Your task to perform on an android device: Set the phone to "Do not disturb". Image 0: 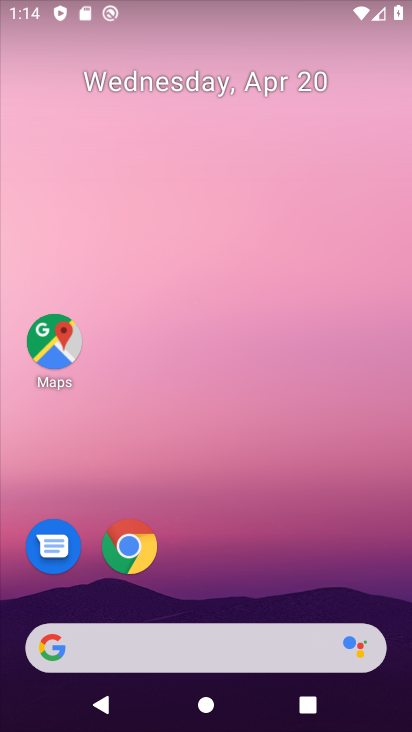
Step 0: drag from (219, 553) to (409, 24)
Your task to perform on an android device: Set the phone to "Do not disturb". Image 1: 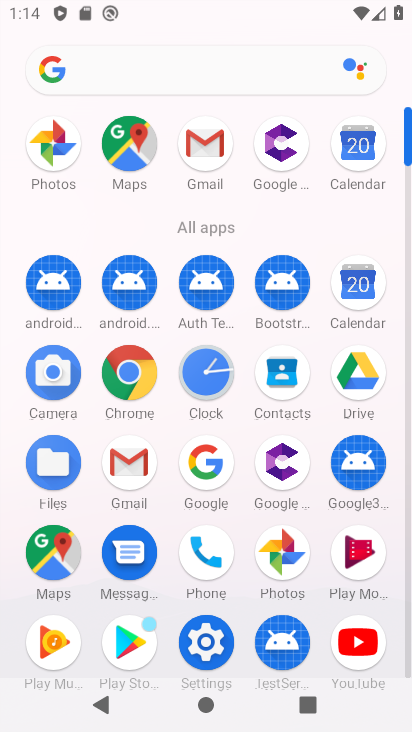
Step 1: click (213, 646)
Your task to perform on an android device: Set the phone to "Do not disturb". Image 2: 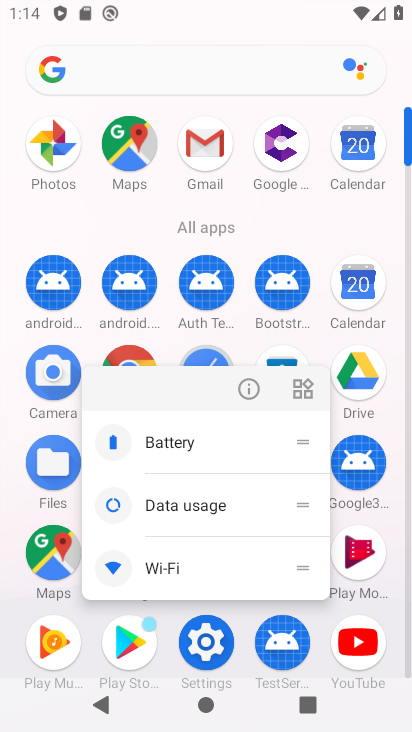
Step 2: click (212, 645)
Your task to perform on an android device: Set the phone to "Do not disturb". Image 3: 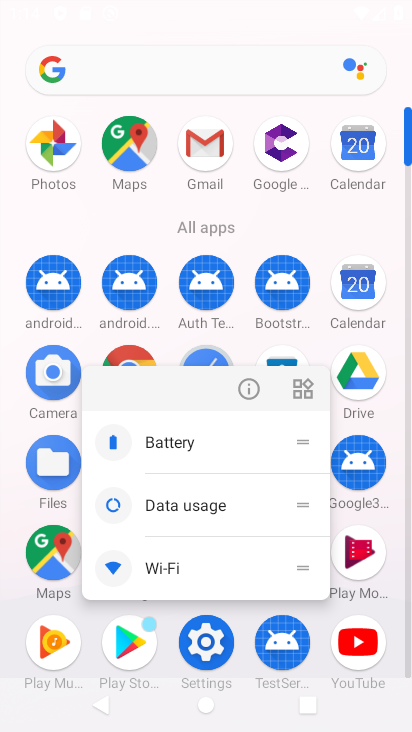
Step 3: click (206, 651)
Your task to perform on an android device: Set the phone to "Do not disturb". Image 4: 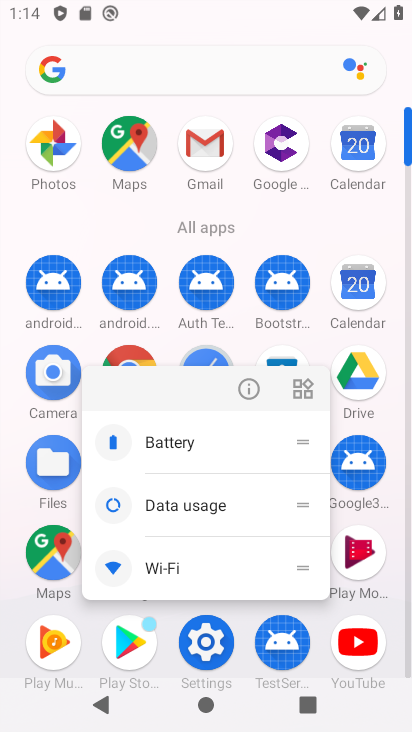
Step 4: click (199, 659)
Your task to perform on an android device: Set the phone to "Do not disturb". Image 5: 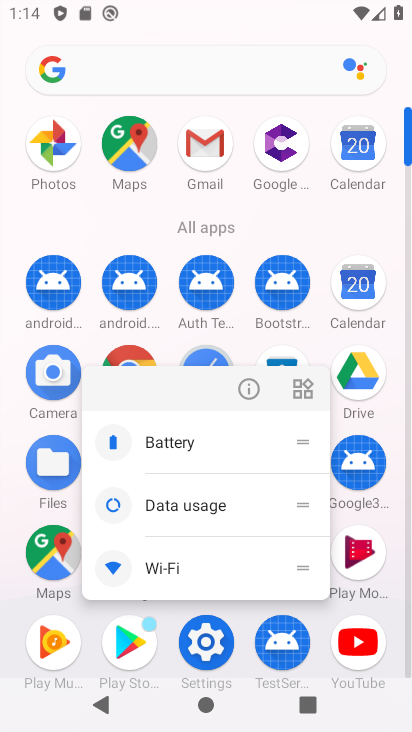
Step 5: click (211, 661)
Your task to perform on an android device: Set the phone to "Do not disturb". Image 6: 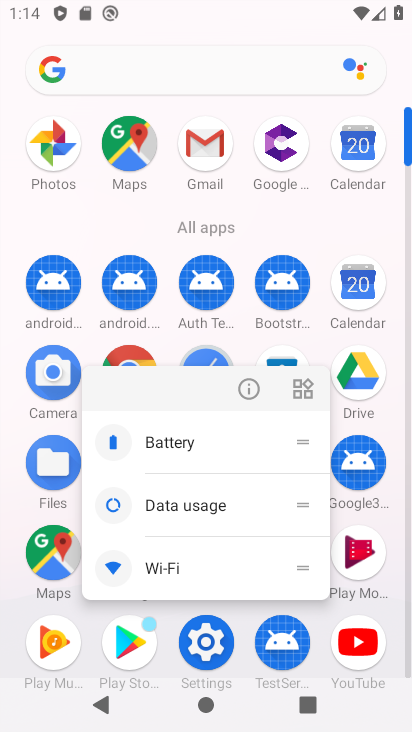
Step 6: click (192, 632)
Your task to perform on an android device: Set the phone to "Do not disturb". Image 7: 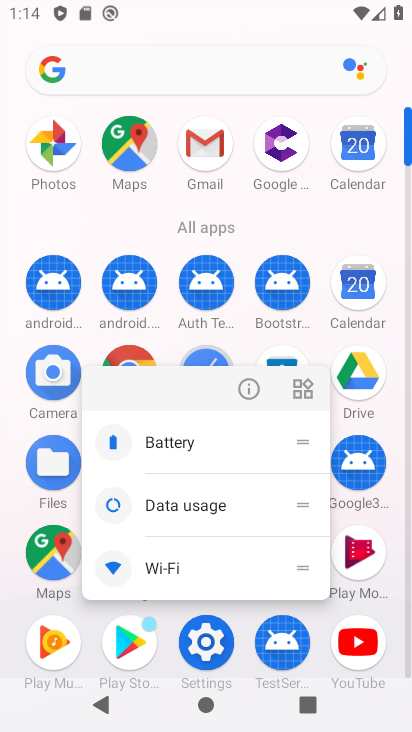
Step 7: click (208, 639)
Your task to perform on an android device: Set the phone to "Do not disturb". Image 8: 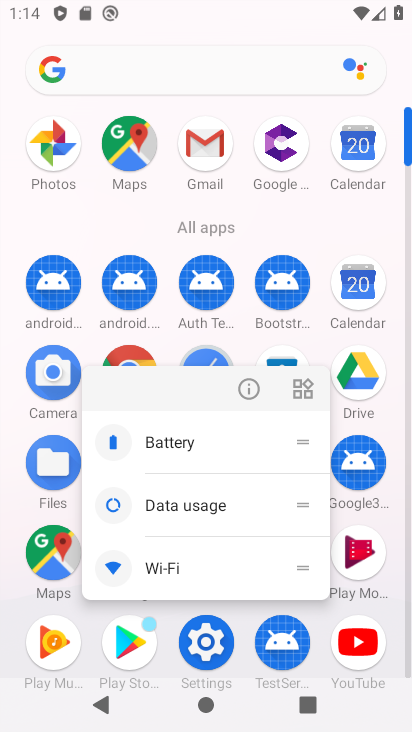
Step 8: click (199, 660)
Your task to perform on an android device: Set the phone to "Do not disturb". Image 9: 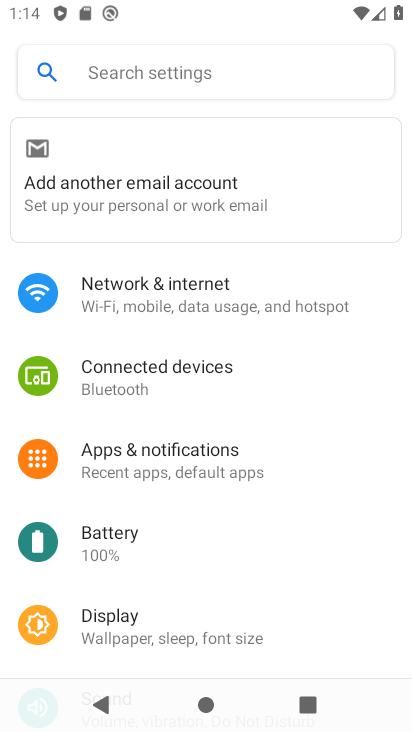
Step 9: click (256, 472)
Your task to perform on an android device: Set the phone to "Do not disturb". Image 10: 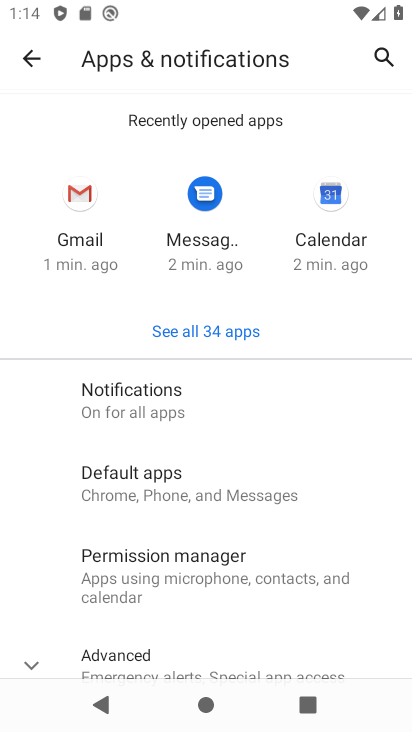
Step 10: click (199, 417)
Your task to perform on an android device: Set the phone to "Do not disturb". Image 11: 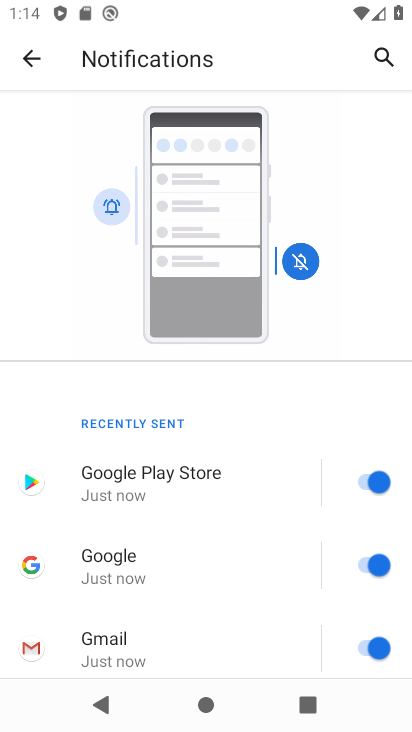
Step 11: drag from (188, 559) to (367, 83)
Your task to perform on an android device: Set the phone to "Do not disturb". Image 12: 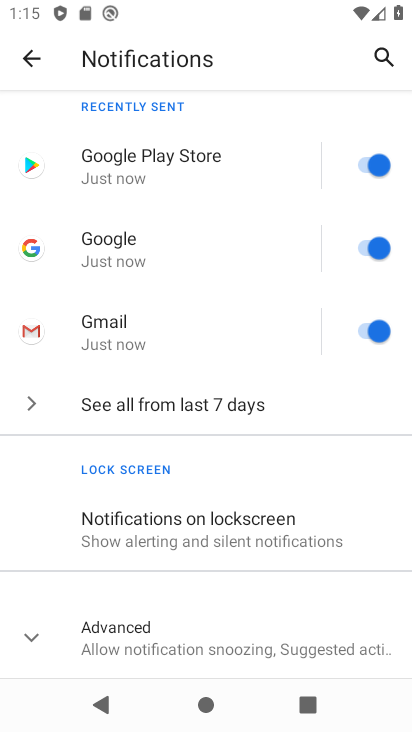
Step 12: click (259, 657)
Your task to perform on an android device: Set the phone to "Do not disturb". Image 13: 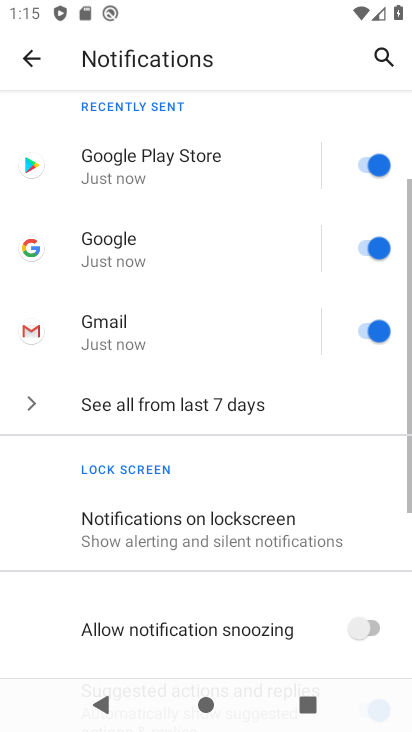
Step 13: drag from (251, 502) to (400, 186)
Your task to perform on an android device: Set the phone to "Do not disturb". Image 14: 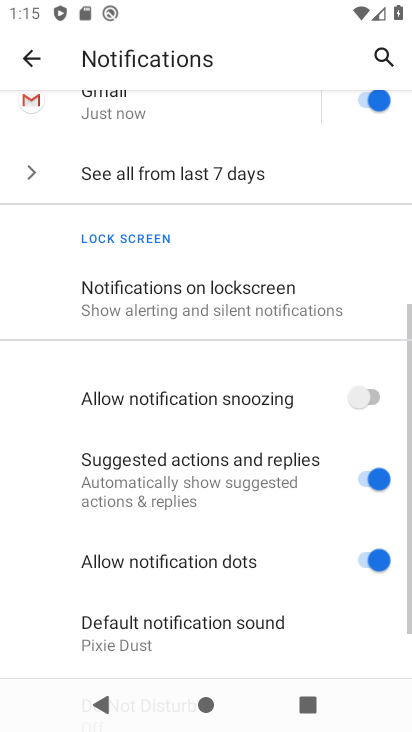
Step 14: drag from (180, 668) to (358, 118)
Your task to perform on an android device: Set the phone to "Do not disturb". Image 15: 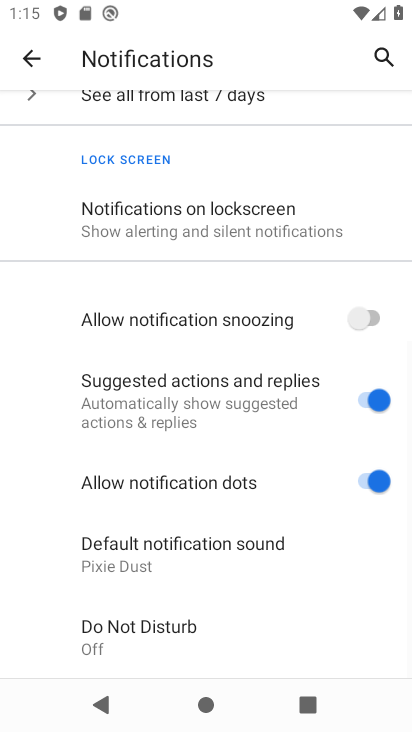
Step 15: click (234, 635)
Your task to perform on an android device: Set the phone to "Do not disturb". Image 16: 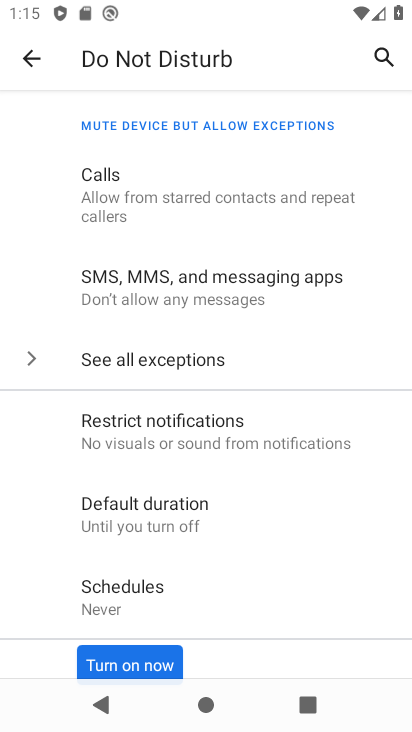
Step 16: click (127, 667)
Your task to perform on an android device: Set the phone to "Do not disturb". Image 17: 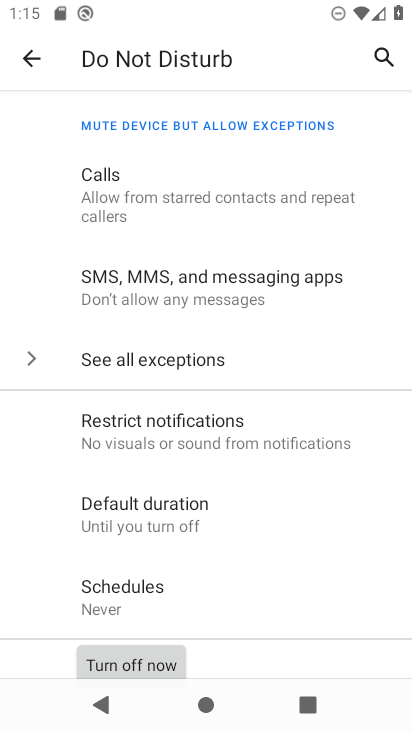
Step 17: task complete